Your task to perform on an android device: Go to Amazon Image 0: 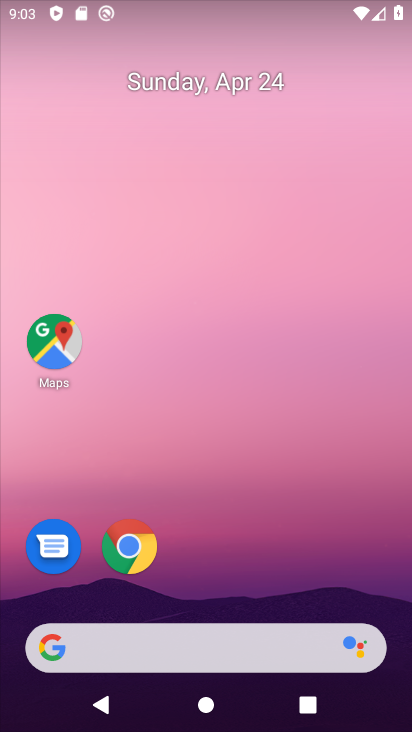
Step 0: click (123, 547)
Your task to perform on an android device: Go to Amazon Image 1: 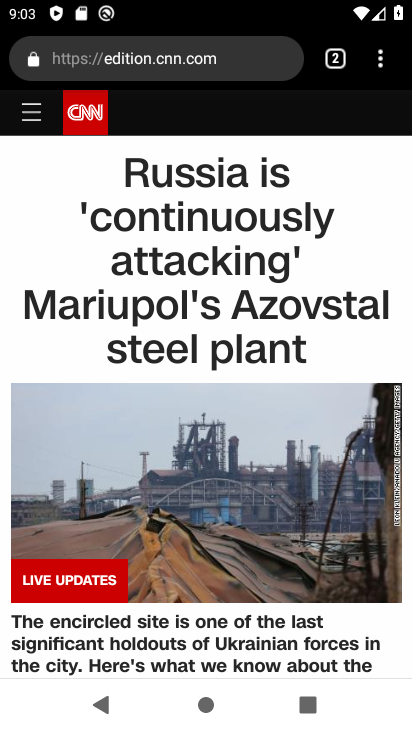
Step 1: click (340, 56)
Your task to perform on an android device: Go to Amazon Image 2: 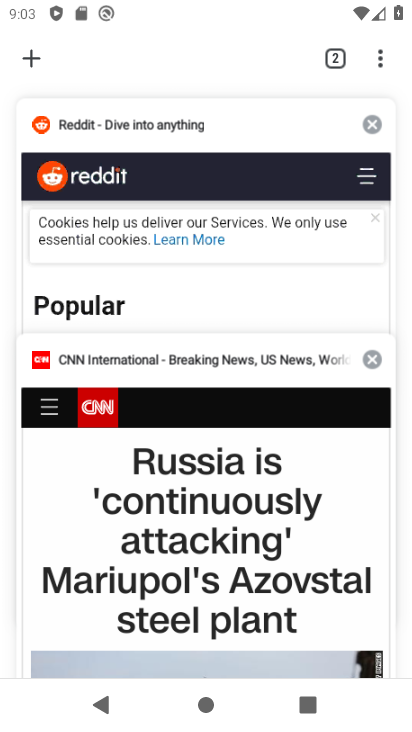
Step 2: click (44, 57)
Your task to perform on an android device: Go to Amazon Image 3: 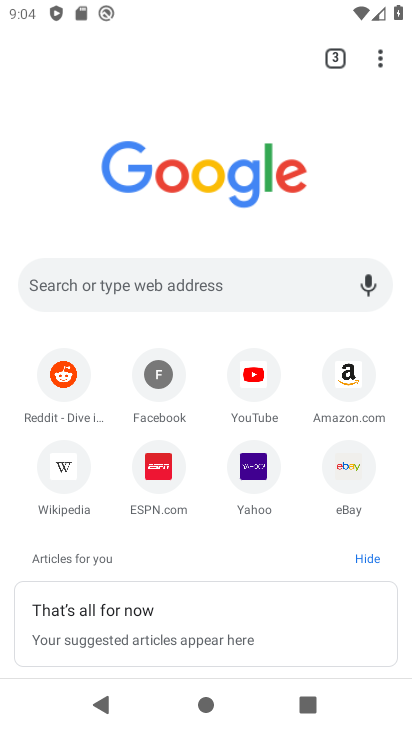
Step 3: click (335, 372)
Your task to perform on an android device: Go to Amazon Image 4: 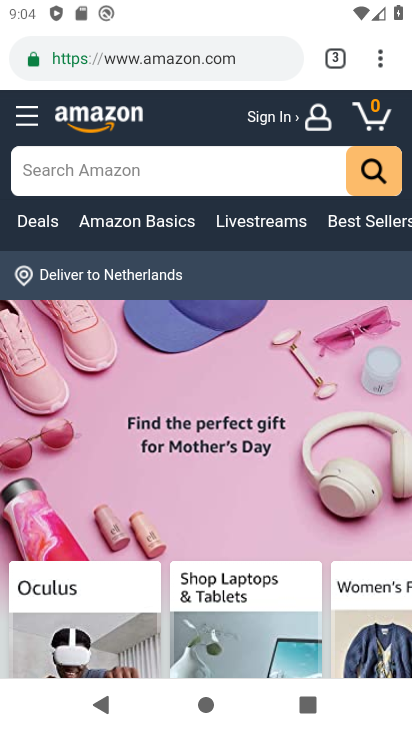
Step 4: task complete